Your task to perform on an android device: Search for the best selling video games at Target Image 0: 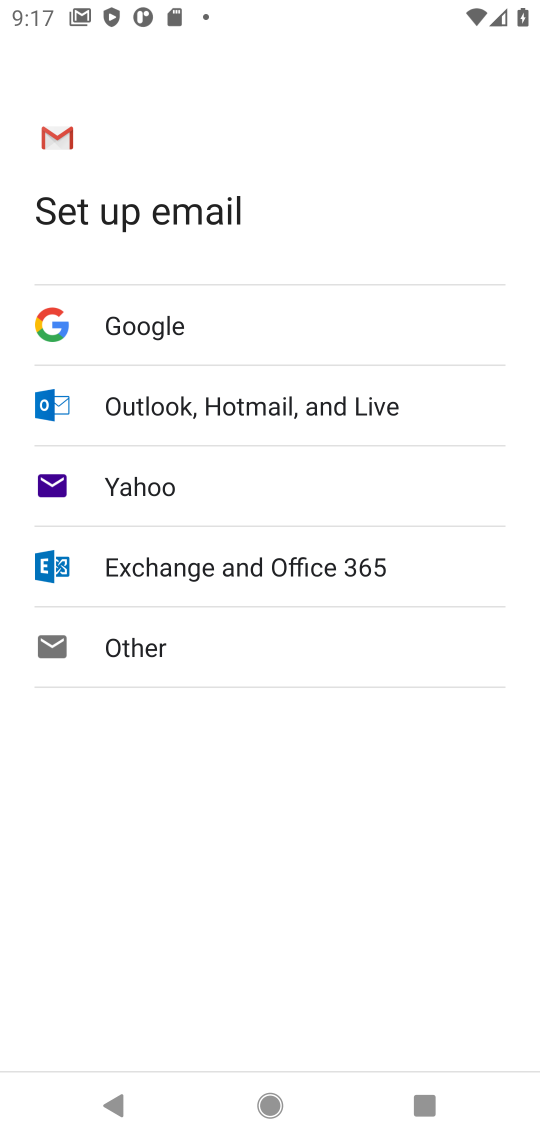
Step 0: press home button
Your task to perform on an android device: Search for the best selling video games at Target Image 1: 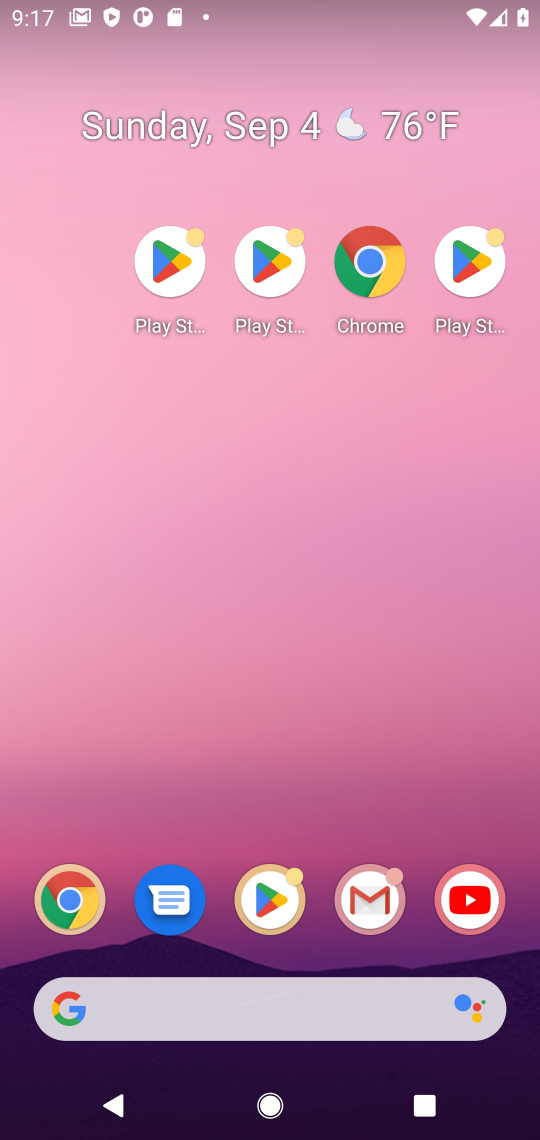
Step 1: click (203, 226)
Your task to perform on an android device: Search for the best selling video games at Target Image 2: 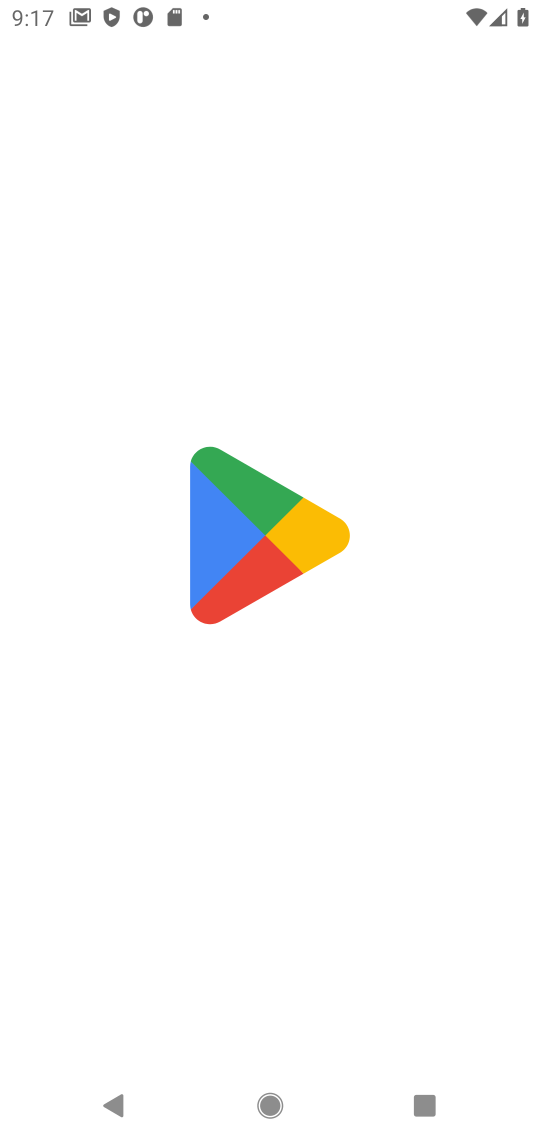
Step 2: press home button
Your task to perform on an android device: Search for the best selling video games at Target Image 3: 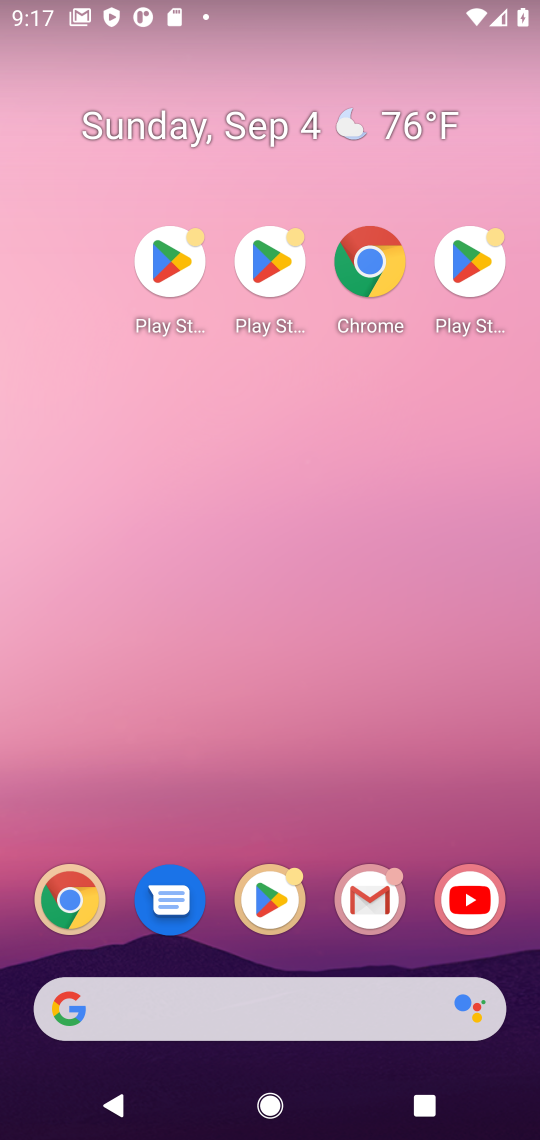
Step 3: drag from (303, 956) to (303, 64)
Your task to perform on an android device: Search for the best selling video games at Target Image 4: 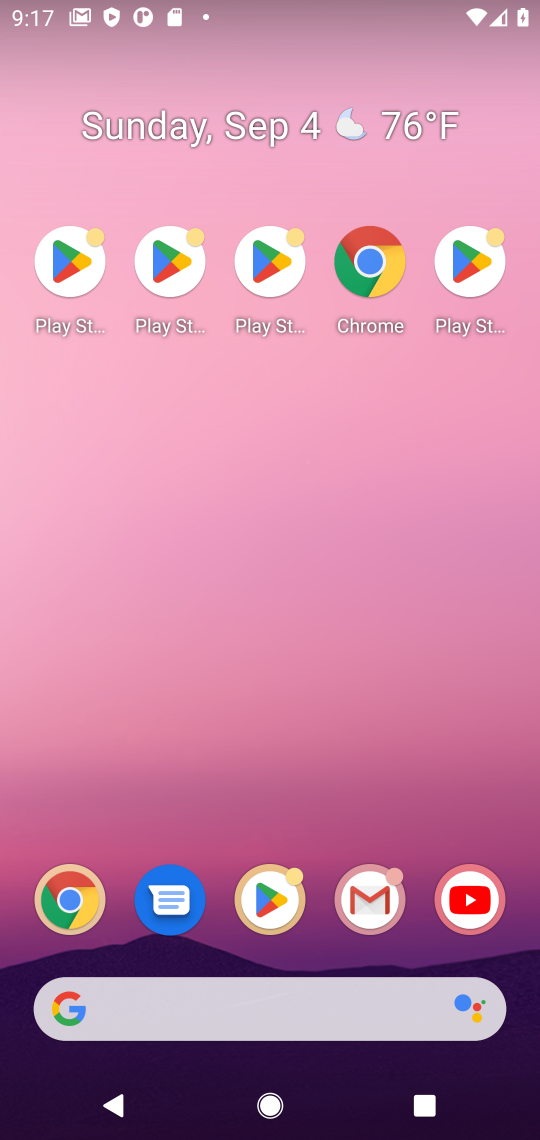
Step 4: click (370, 276)
Your task to perform on an android device: Search for the best selling video games at Target Image 5: 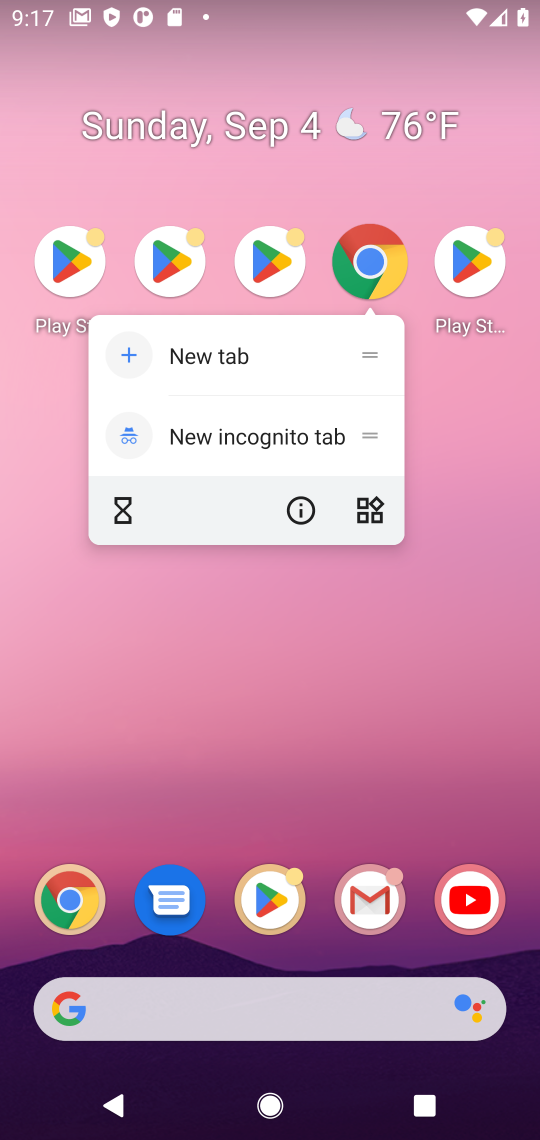
Step 5: click (371, 238)
Your task to perform on an android device: Search for the best selling video games at Target Image 6: 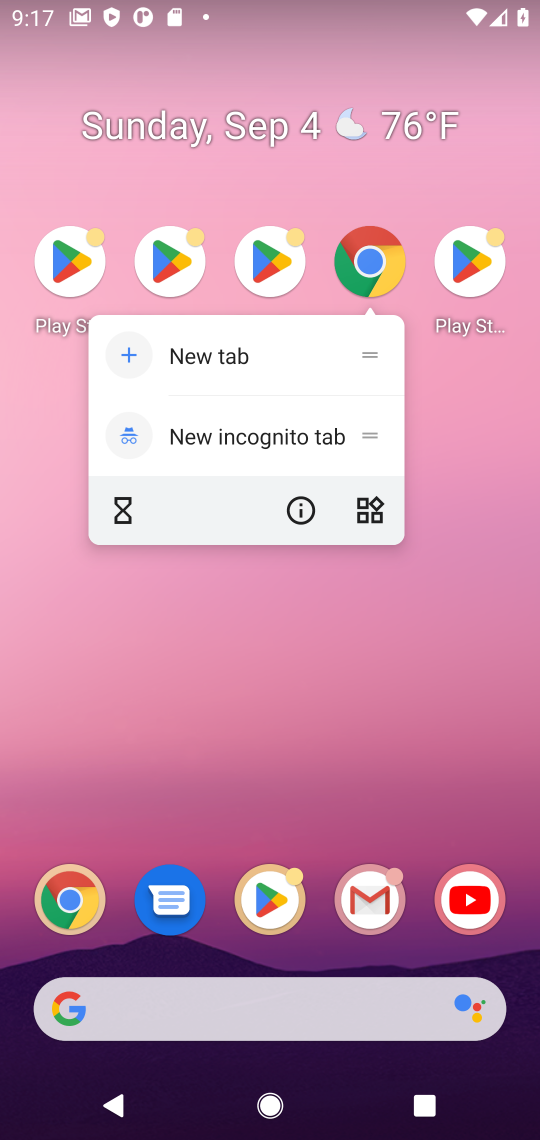
Step 6: click (368, 261)
Your task to perform on an android device: Search for the best selling video games at Target Image 7: 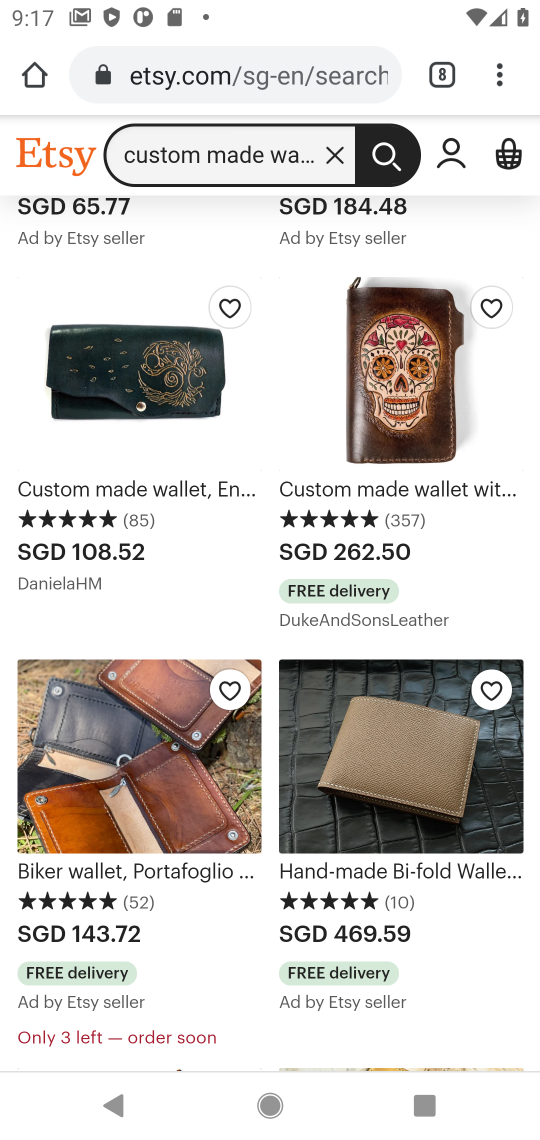
Step 7: click (428, 67)
Your task to perform on an android device: Search for the best selling video games at Target Image 8: 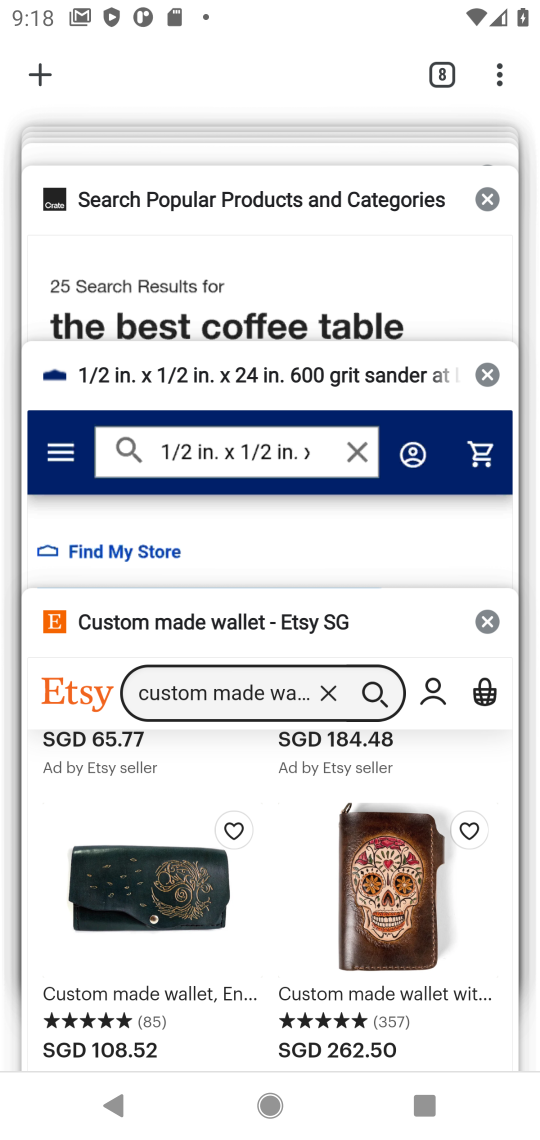
Step 8: click (486, 188)
Your task to perform on an android device: Search for the best selling video games at Target Image 9: 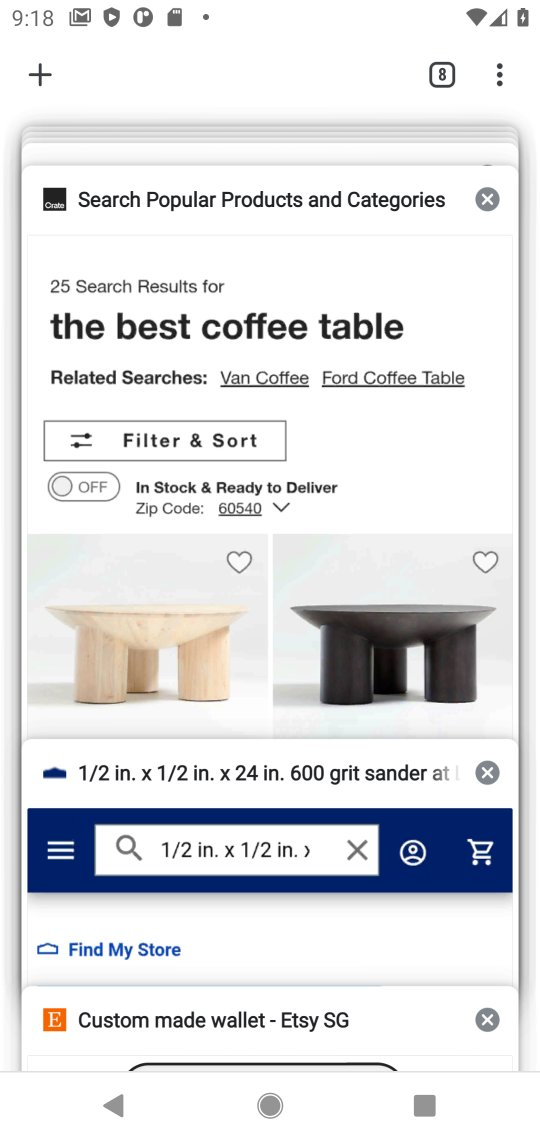
Step 9: click (486, 188)
Your task to perform on an android device: Search for the best selling video games at Target Image 10: 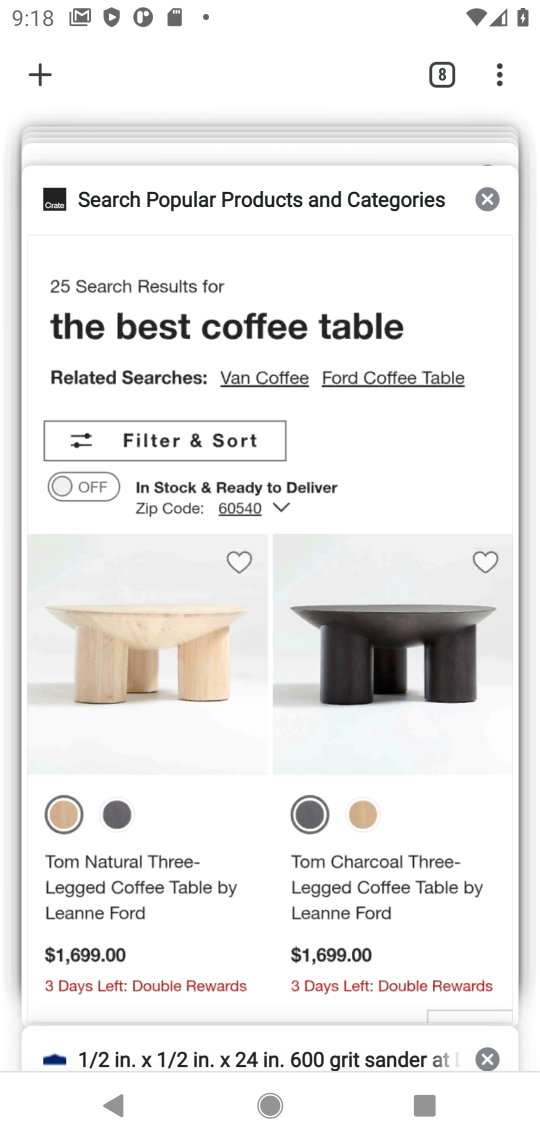
Step 10: click (486, 188)
Your task to perform on an android device: Search for the best selling video games at Target Image 11: 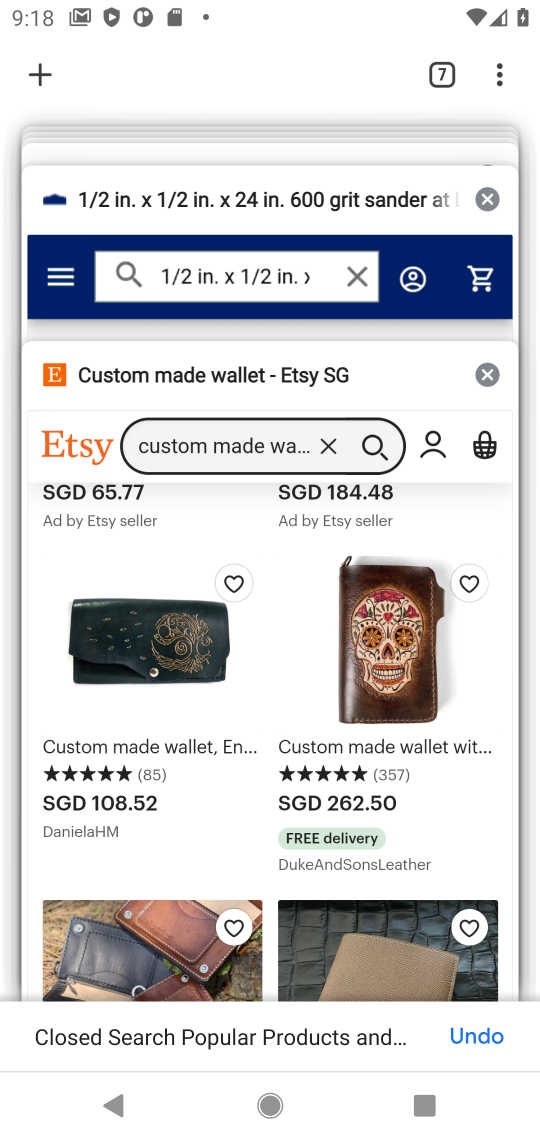
Step 11: click (485, 187)
Your task to perform on an android device: Search for the best selling video games at Target Image 12: 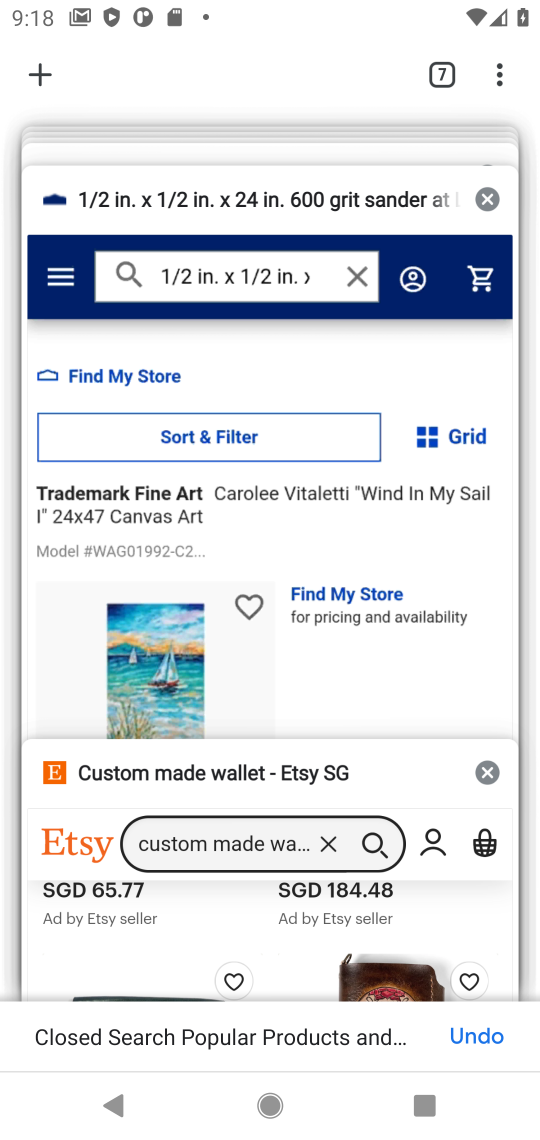
Step 12: click (484, 187)
Your task to perform on an android device: Search for the best selling video games at Target Image 13: 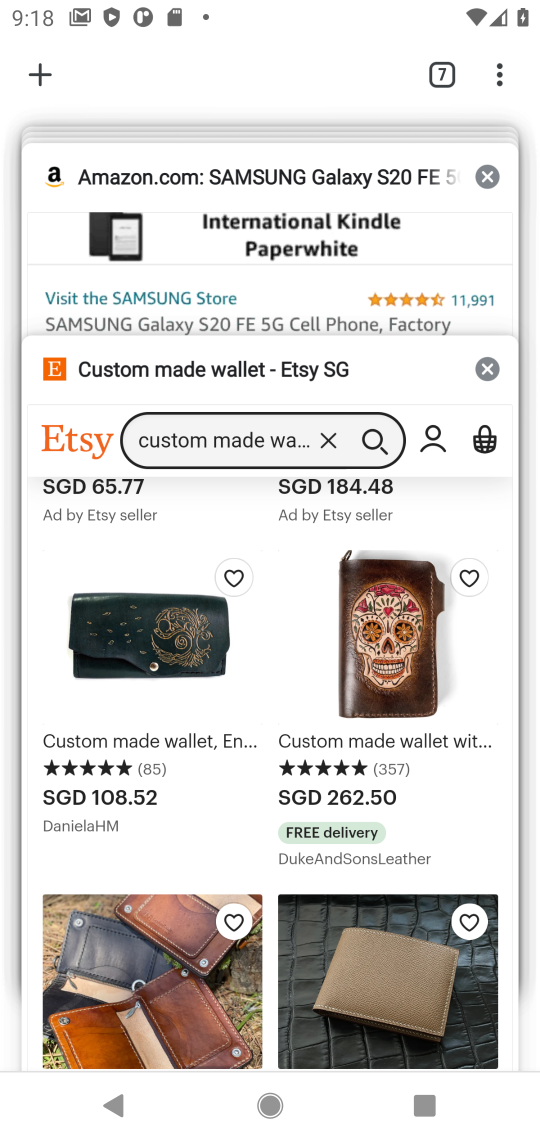
Step 13: click (484, 187)
Your task to perform on an android device: Search for the best selling video games at Target Image 14: 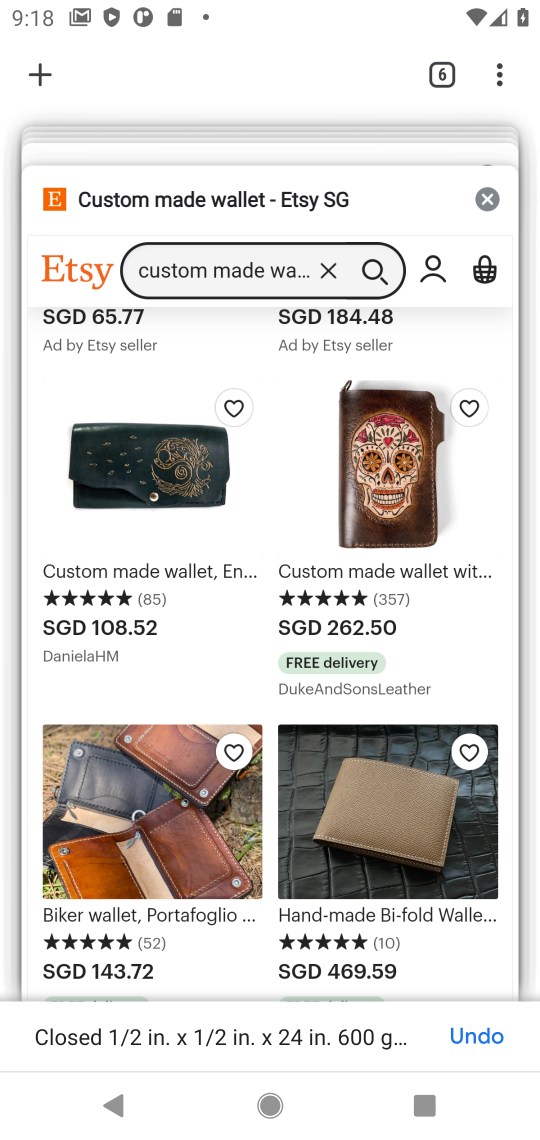
Step 14: click (484, 187)
Your task to perform on an android device: Search for the best selling video games at Target Image 15: 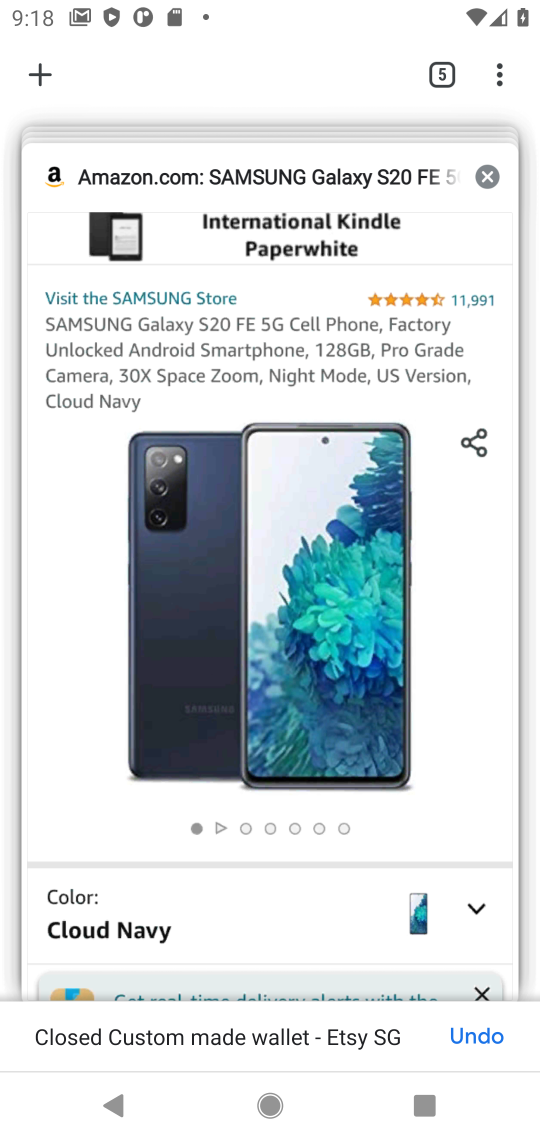
Step 15: click (482, 187)
Your task to perform on an android device: Search for the best selling video games at Target Image 16: 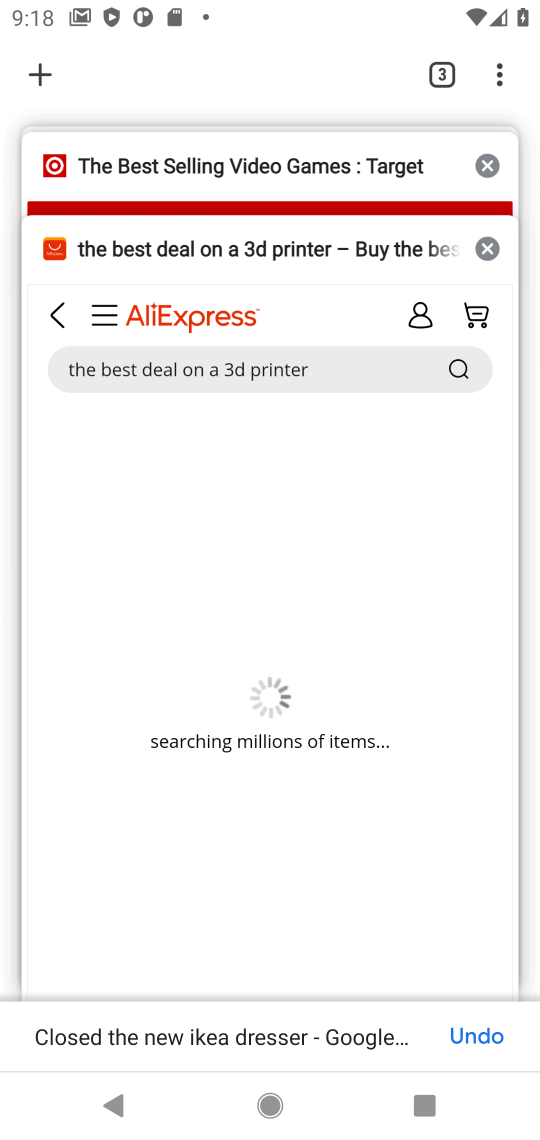
Step 16: click (482, 154)
Your task to perform on an android device: Search for the best selling video games at Target Image 17: 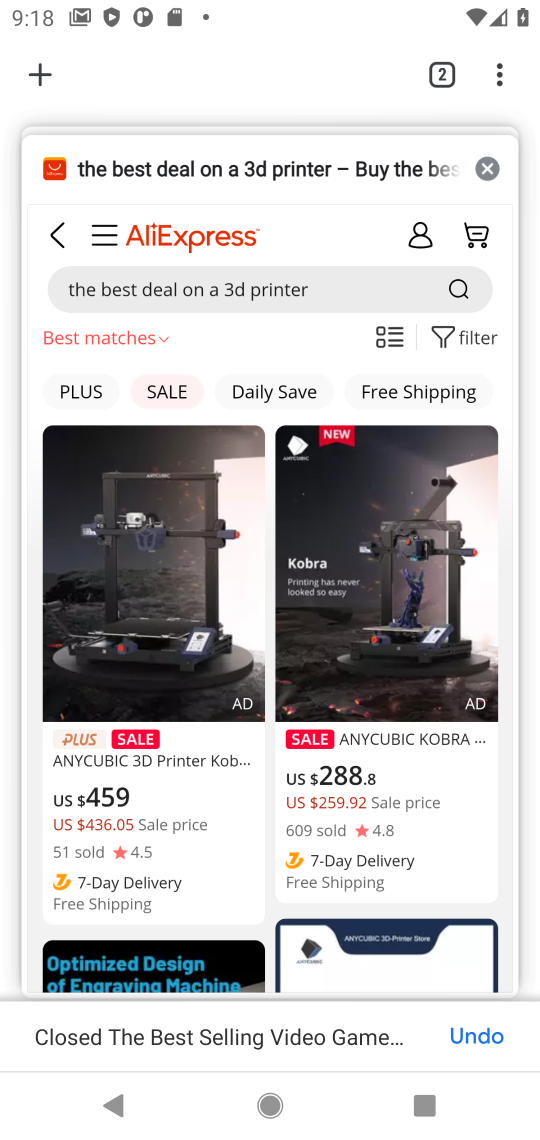
Step 17: click (481, 153)
Your task to perform on an android device: Search for the best selling video games at Target Image 18: 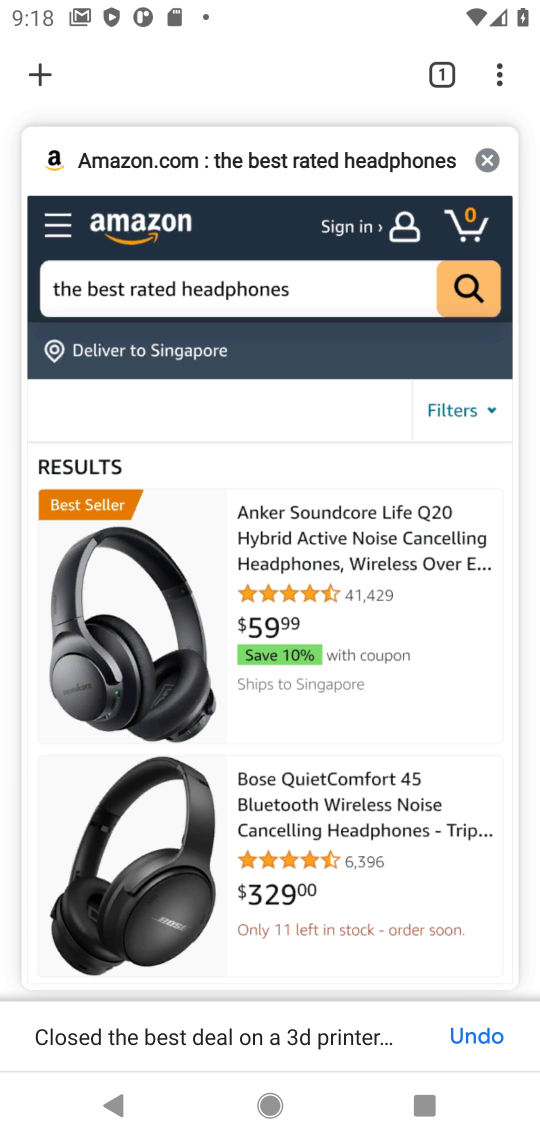
Step 18: click (478, 154)
Your task to perform on an android device: Search for the best selling video games at Target Image 19: 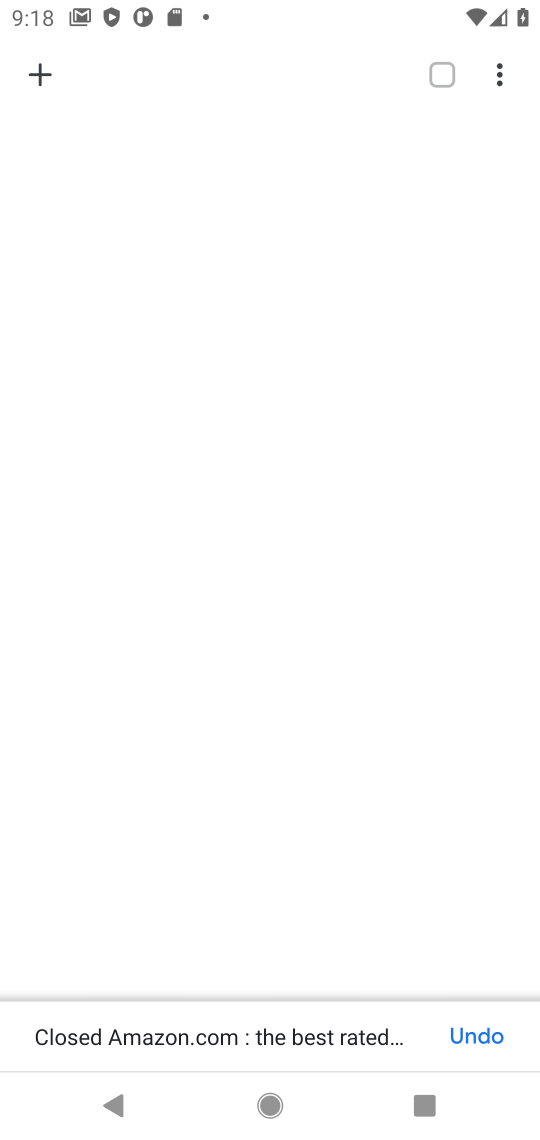
Step 19: click (39, 79)
Your task to perform on an android device: Search for the best selling video games at Target Image 20: 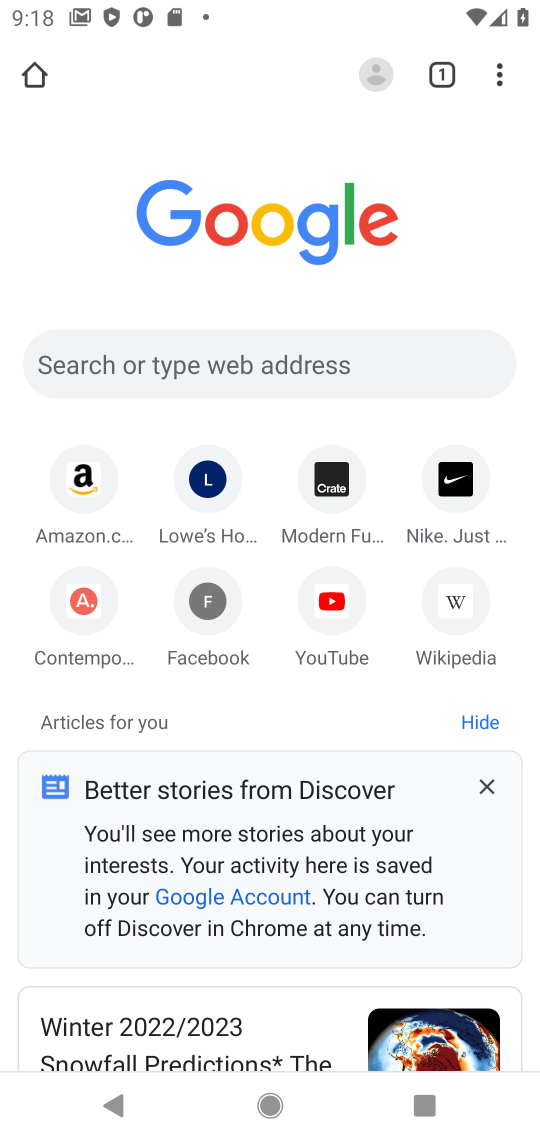
Step 20: click (139, 350)
Your task to perform on an android device: Search for the best selling video games at Target Image 21: 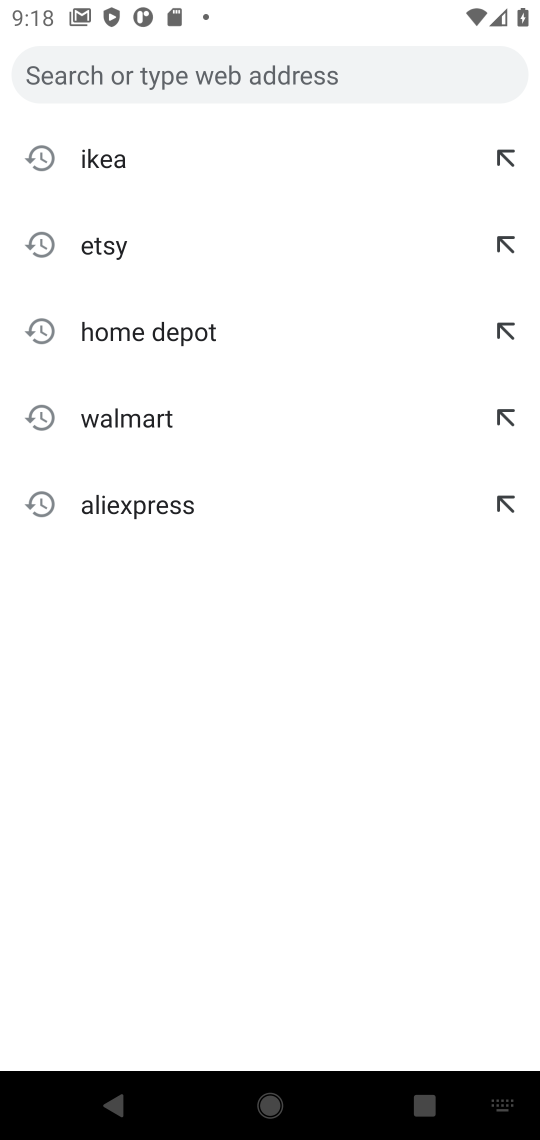
Step 21: type "Target"
Your task to perform on an android device: Search for the best selling video games at Target Image 22: 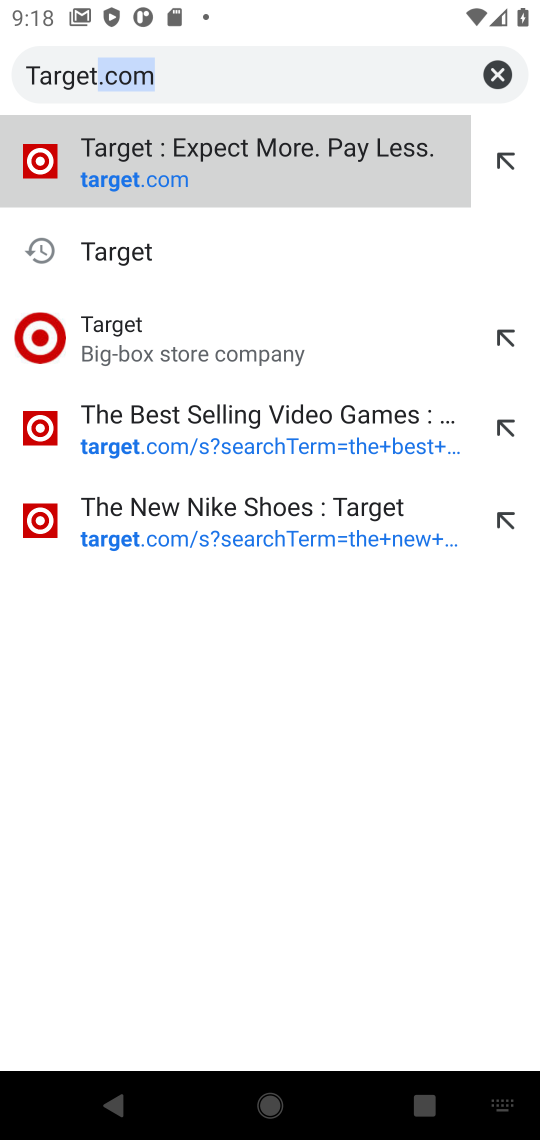
Step 22: click (132, 159)
Your task to perform on an android device: Search for the best selling video games at Target Image 23: 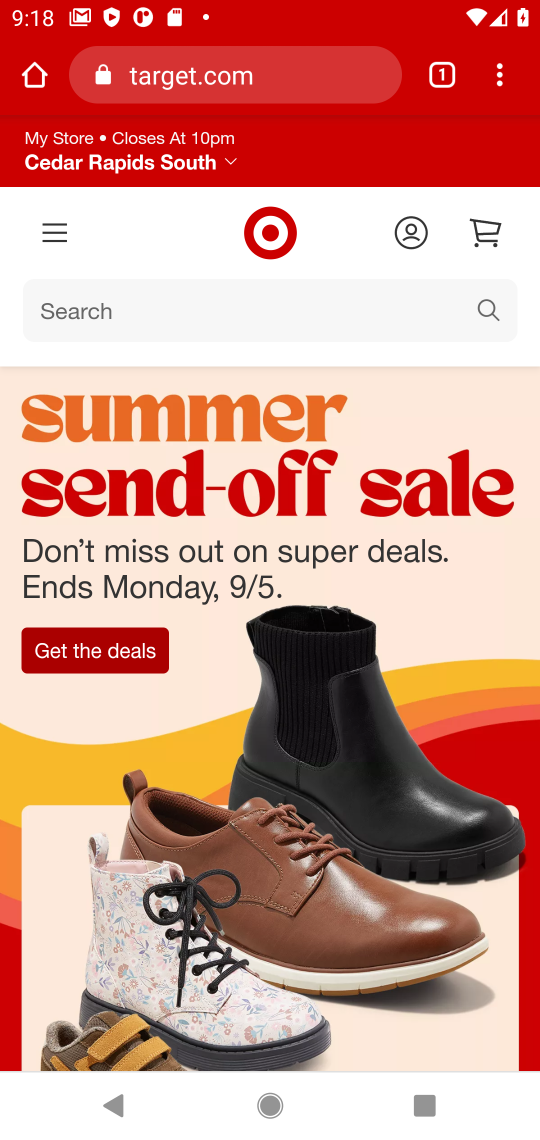
Step 23: drag from (268, 862) to (268, 465)
Your task to perform on an android device: Search for the best selling video games at Target Image 24: 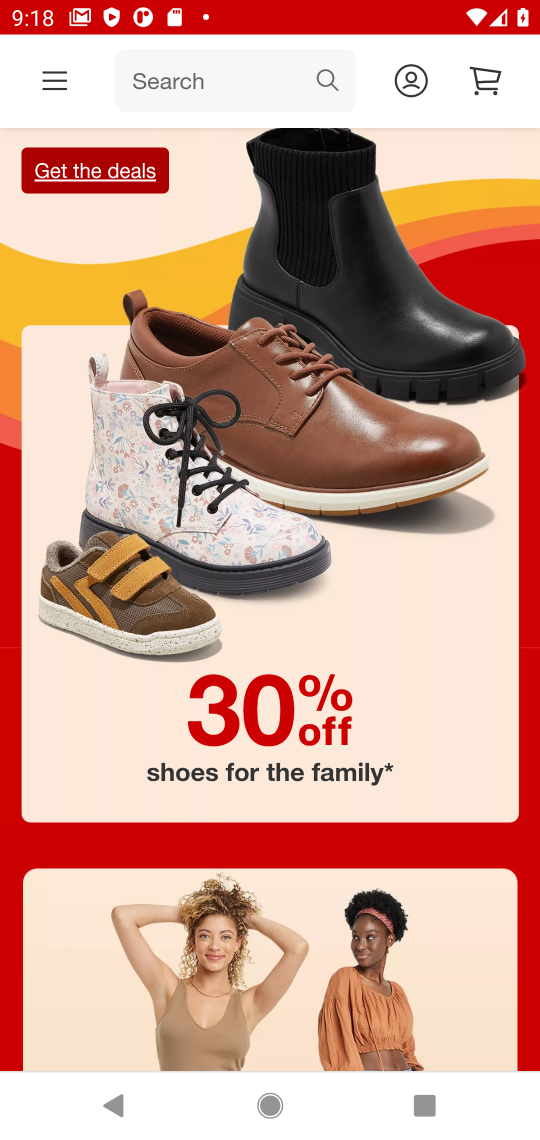
Step 24: click (300, 100)
Your task to perform on an android device: Search for the best selling video games at Target Image 25: 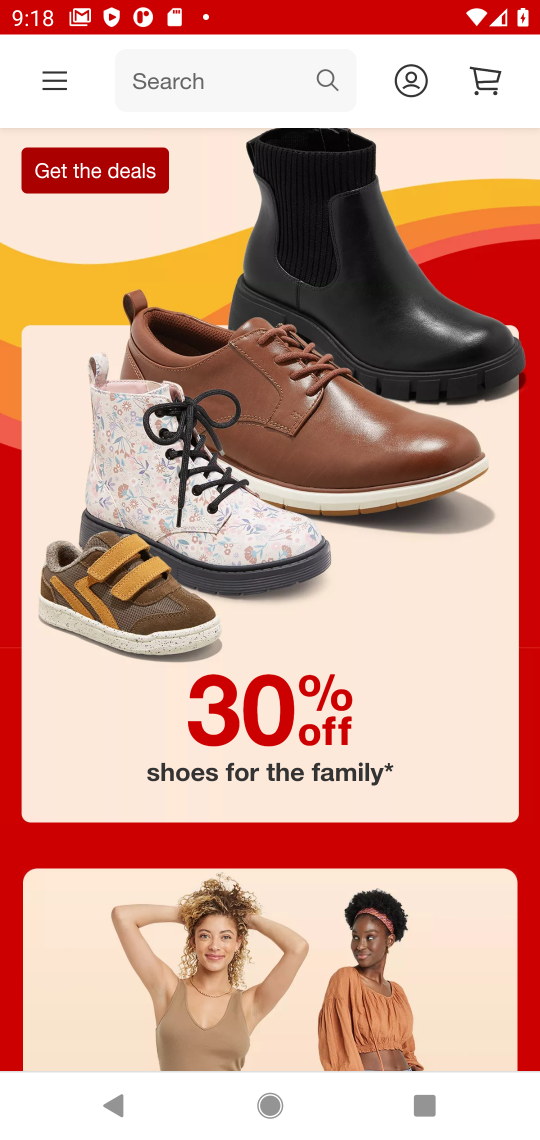
Step 25: click (209, 79)
Your task to perform on an android device: Search for the best selling video games at Target Image 26: 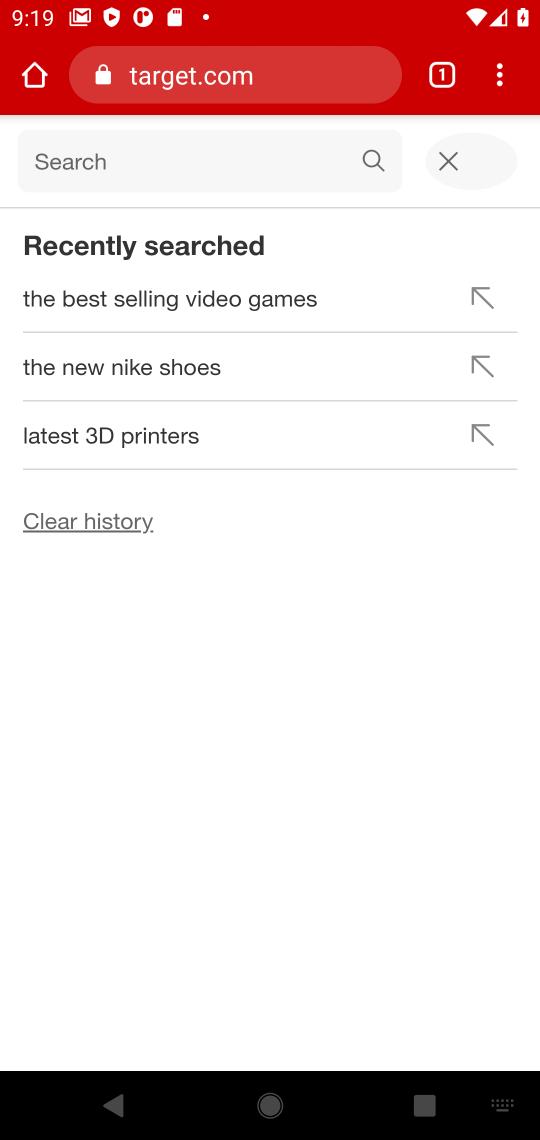
Step 26: type "the best selling video games"
Your task to perform on an android device: Search for the best selling video games at Target Image 27: 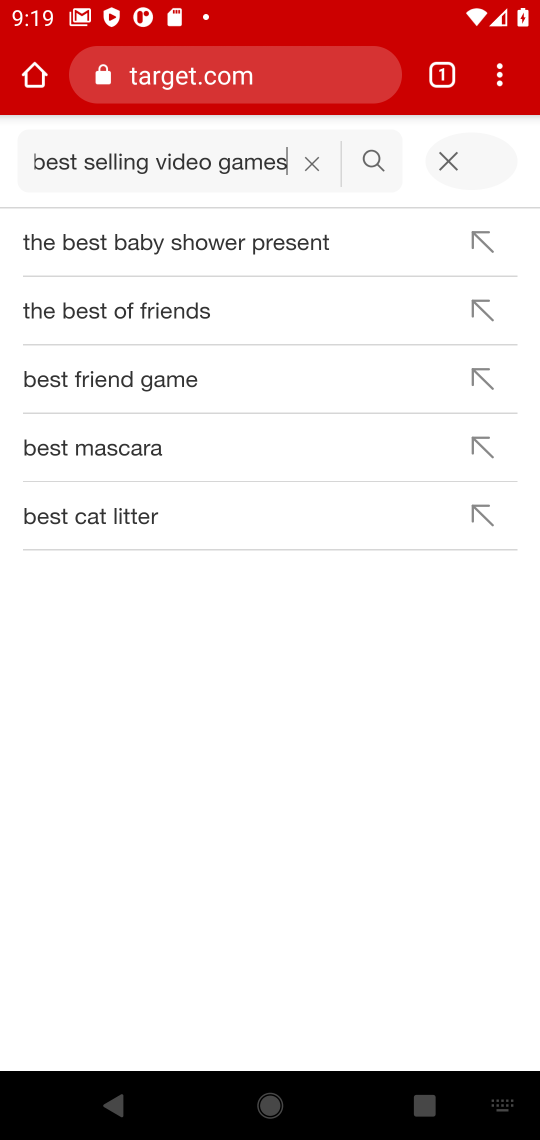
Step 27: click (366, 162)
Your task to perform on an android device: Search for the best selling video games at Target Image 28: 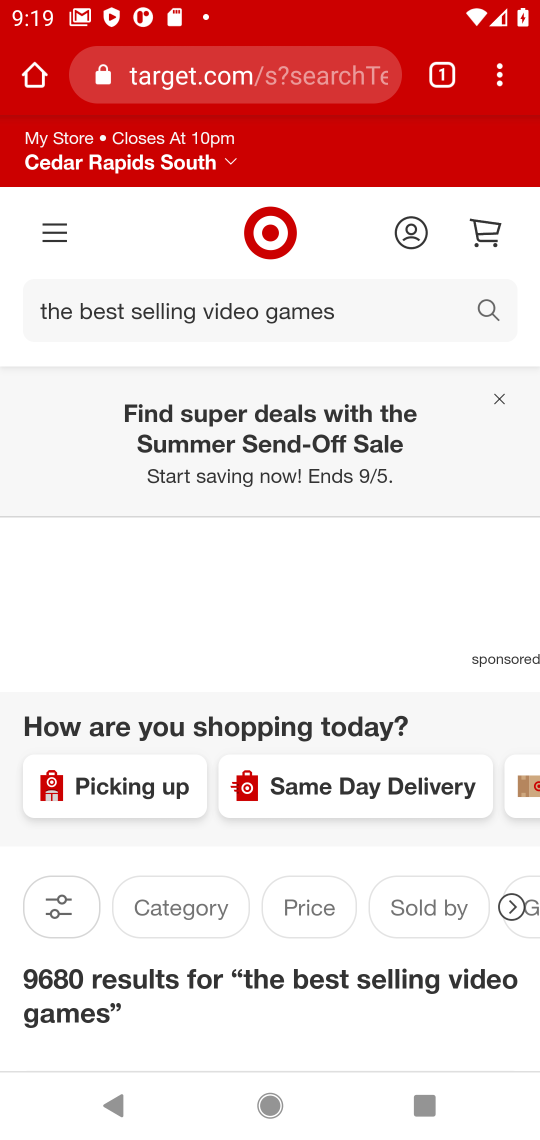
Step 28: task complete